Your task to perform on an android device: Open Wikipedia Image 0: 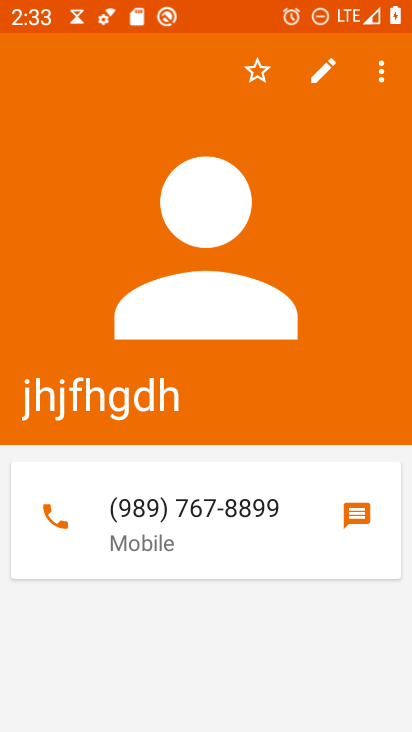
Step 0: press home button
Your task to perform on an android device: Open Wikipedia Image 1: 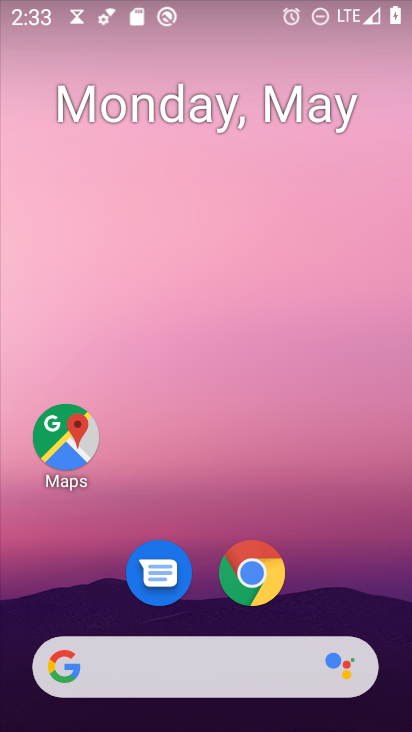
Step 1: drag from (280, 505) to (298, 16)
Your task to perform on an android device: Open Wikipedia Image 2: 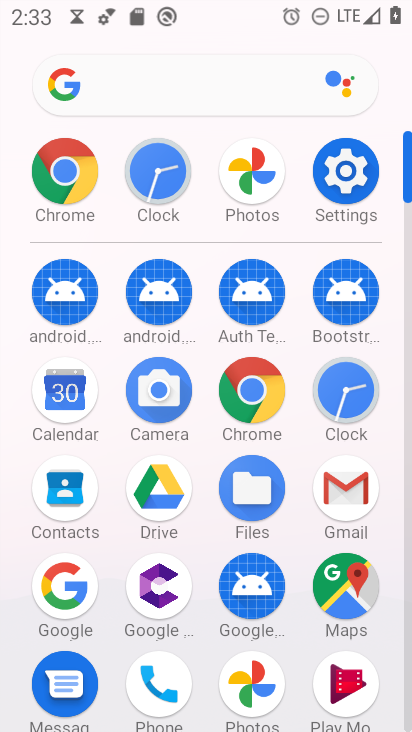
Step 2: click (266, 375)
Your task to perform on an android device: Open Wikipedia Image 3: 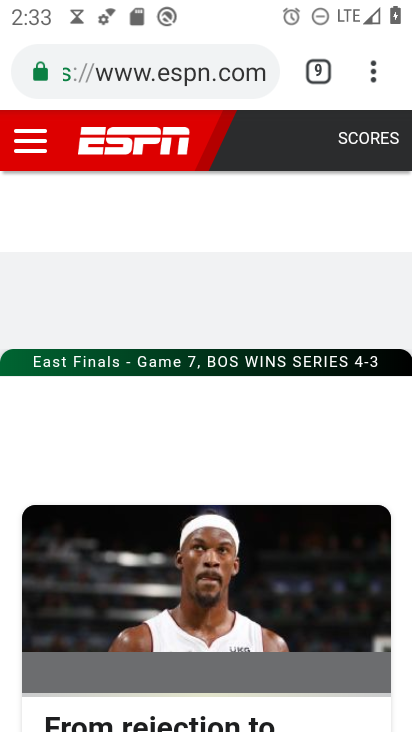
Step 3: drag from (374, 66) to (238, 132)
Your task to perform on an android device: Open Wikipedia Image 4: 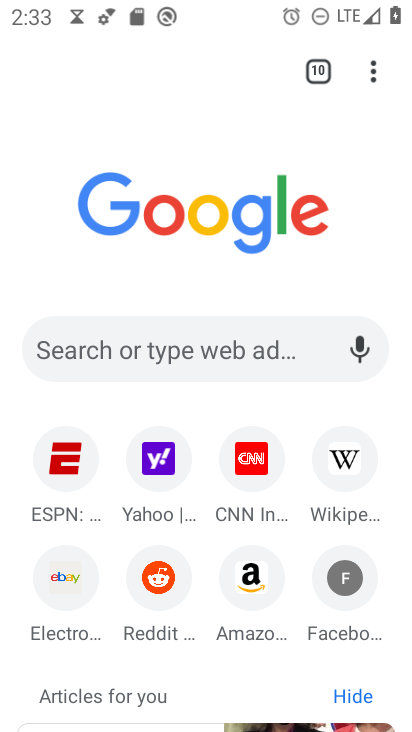
Step 4: click (321, 464)
Your task to perform on an android device: Open Wikipedia Image 5: 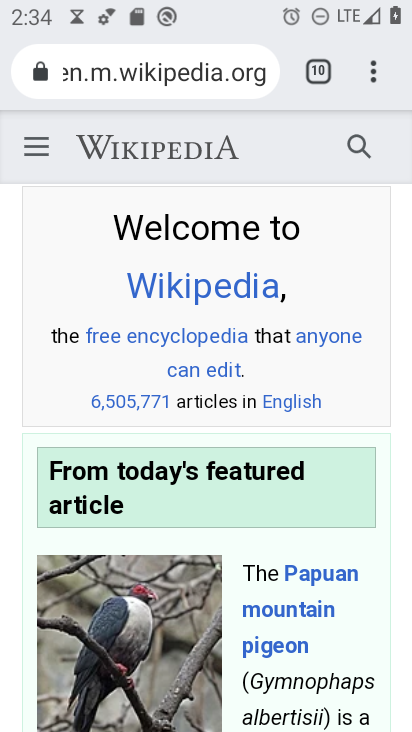
Step 5: task complete